Your task to perform on an android device: turn on the 24-hour format for clock Image 0: 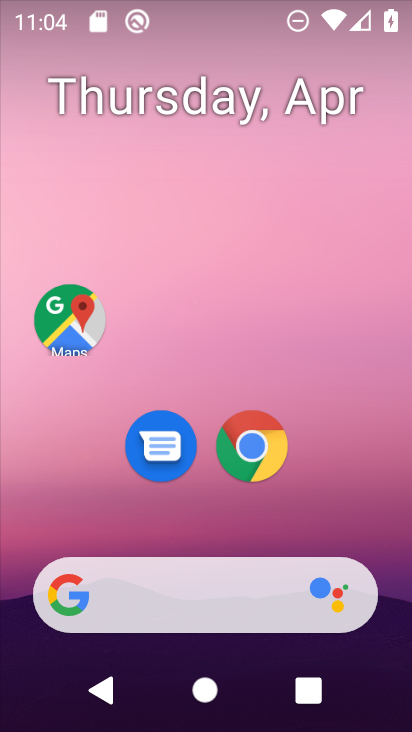
Step 0: drag from (248, 344) to (262, 240)
Your task to perform on an android device: turn on the 24-hour format for clock Image 1: 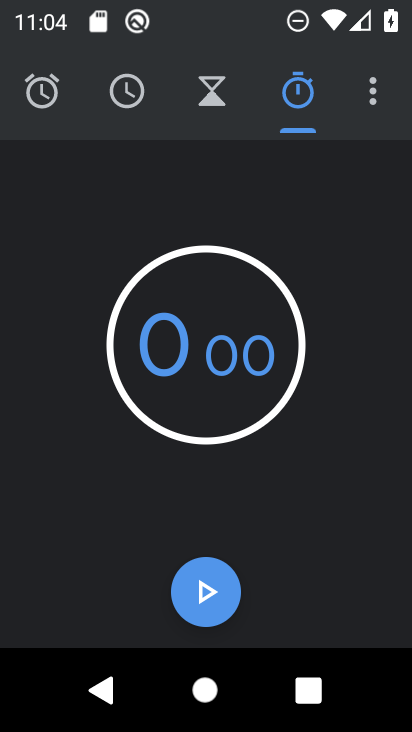
Step 1: click (366, 99)
Your task to perform on an android device: turn on the 24-hour format for clock Image 2: 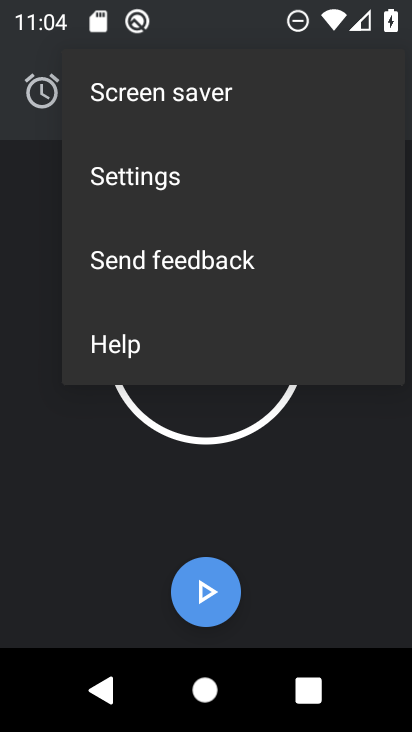
Step 2: click (172, 181)
Your task to perform on an android device: turn on the 24-hour format for clock Image 3: 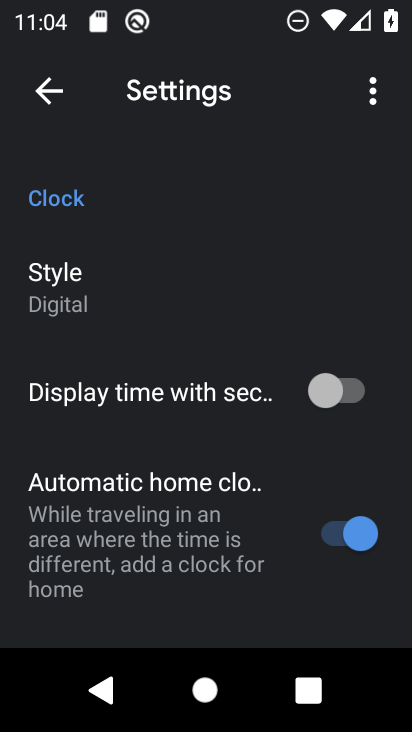
Step 3: drag from (213, 564) to (308, 223)
Your task to perform on an android device: turn on the 24-hour format for clock Image 4: 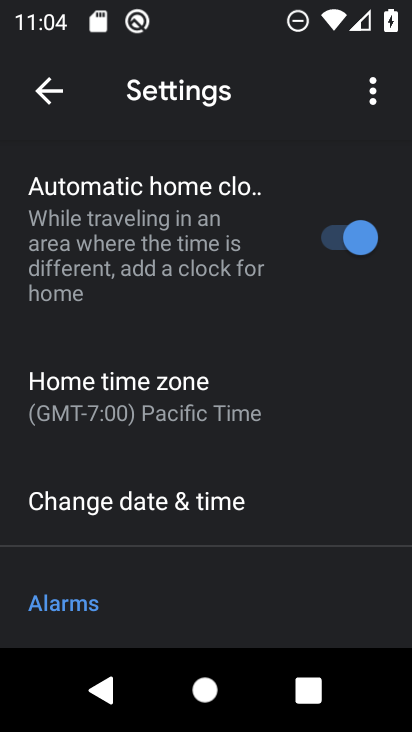
Step 4: click (205, 522)
Your task to perform on an android device: turn on the 24-hour format for clock Image 5: 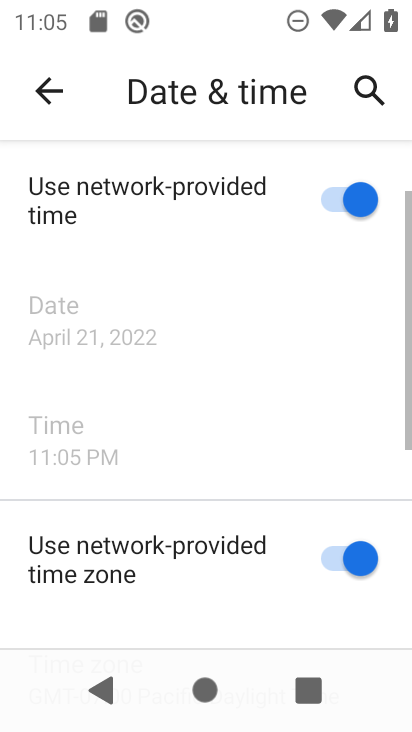
Step 5: drag from (234, 595) to (250, 265)
Your task to perform on an android device: turn on the 24-hour format for clock Image 6: 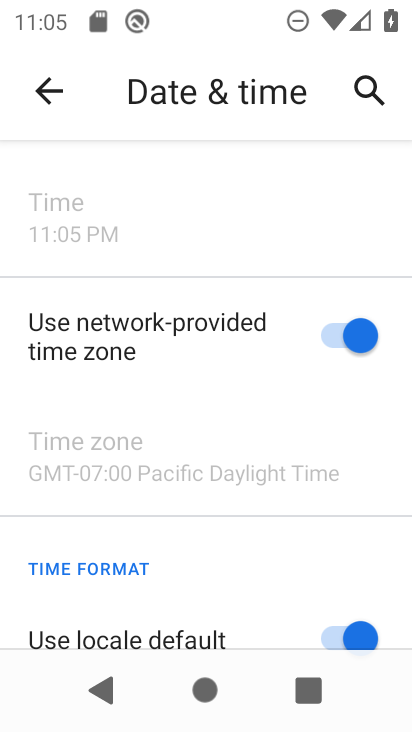
Step 6: drag from (223, 577) to (224, 238)
Your task to perform on an android device: turn on the 24-hour format for clock Image 7: 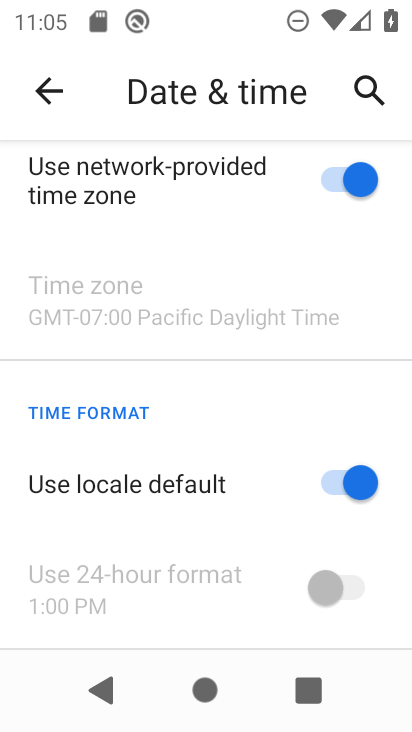
Step 7: click (350, 482)
Your task to perform on an android device: turn on the 24-hour format for clock Image 8: 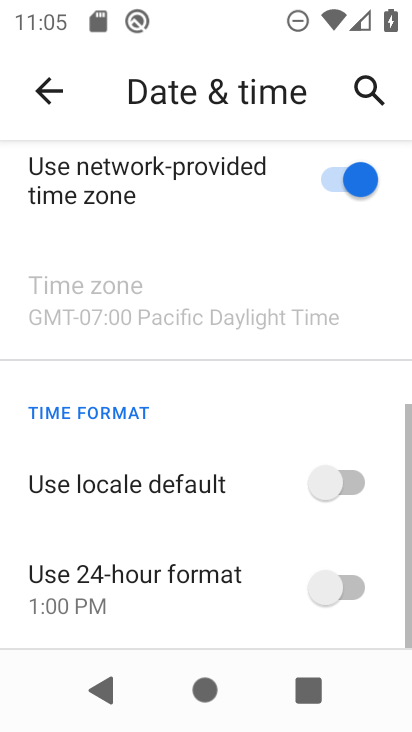
Step 8: click (326, 581)
Your task to perform on an android device: turn on the 24-hour format for clock Image 9: 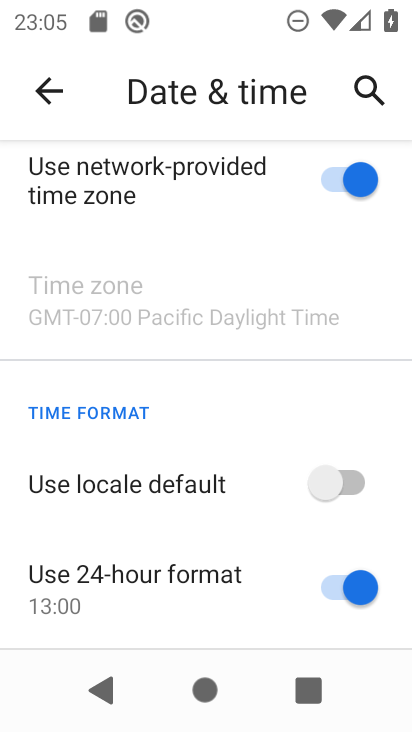
Step 9: task complete